Your task to perform on an android device: Open Google Chrome Image 0: 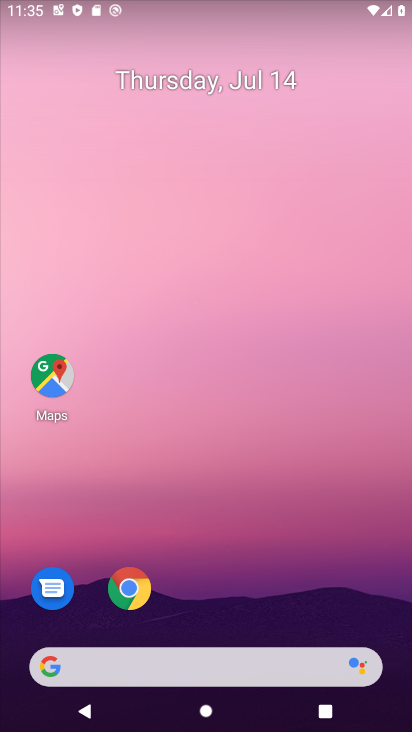
Step 0: click (129, 586)
Your task to perform on an android device: Open Google Chrome Image 1: 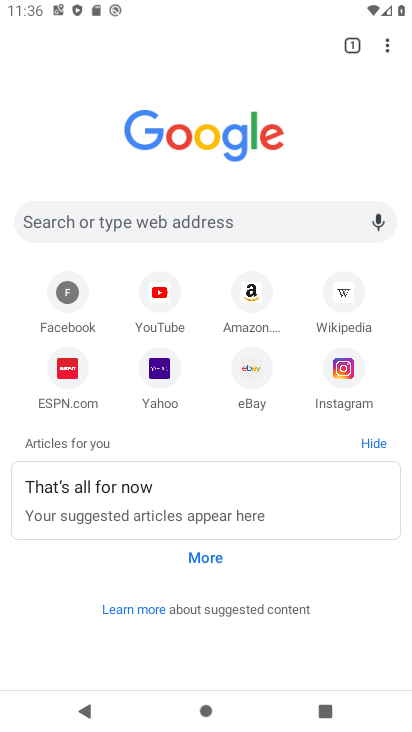
Step 1: task complete